Your task to perform on an android device: find snoozed emails in the gmail app Image 0: 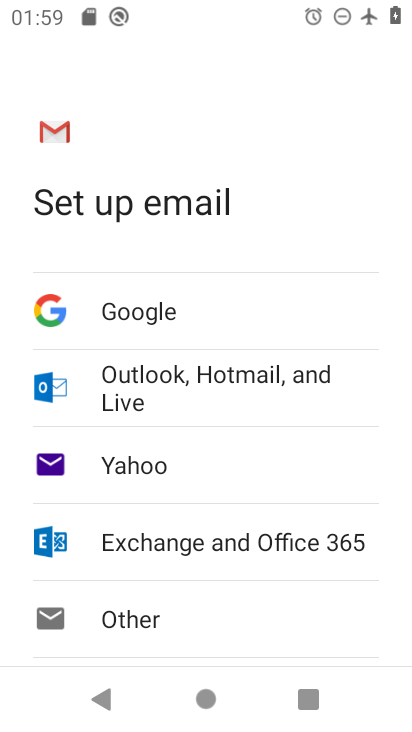
Step 0: press home button
Your task to perform on an android device: find snoozed emails in the gmail app Image 1: 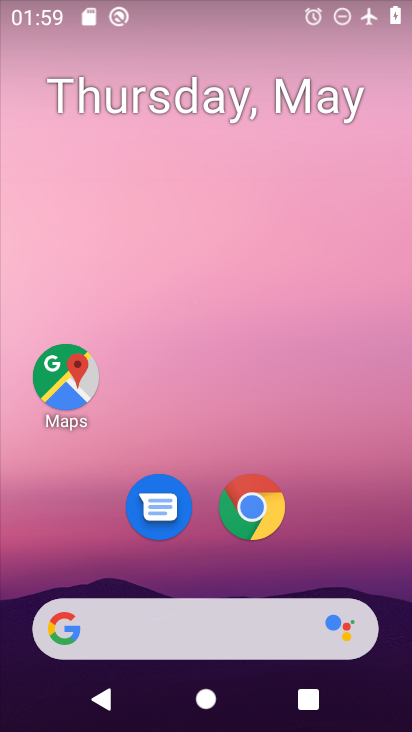
Step 1: drag from (363, 529) to (316, 43)
Your task to perform on an android device: find snoozed emails in the gmail app Image 2: 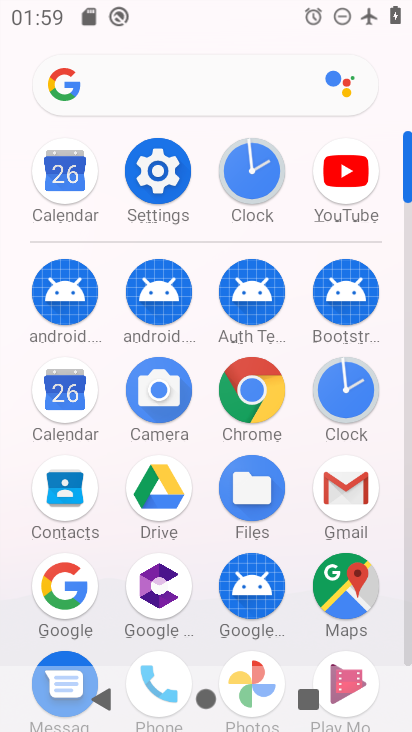
Step 2: click (365, 481)
Your task to perform on an android device: find snoozed emails in the gmail app Image 3: 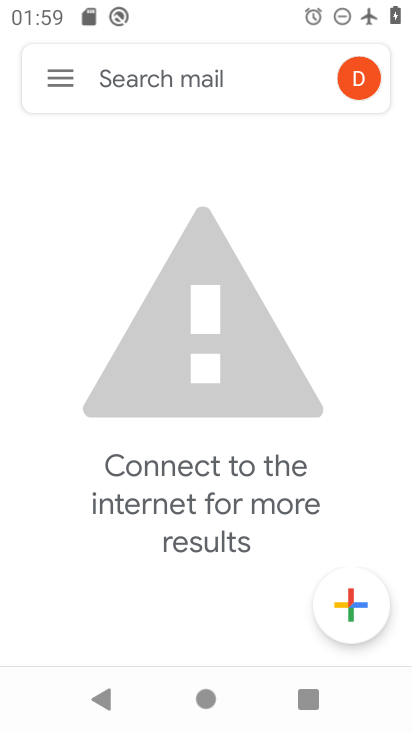
Step 3: click (69, 79)
Your task to perform on an android device: find snoozed emails in the gmail app Image 4: 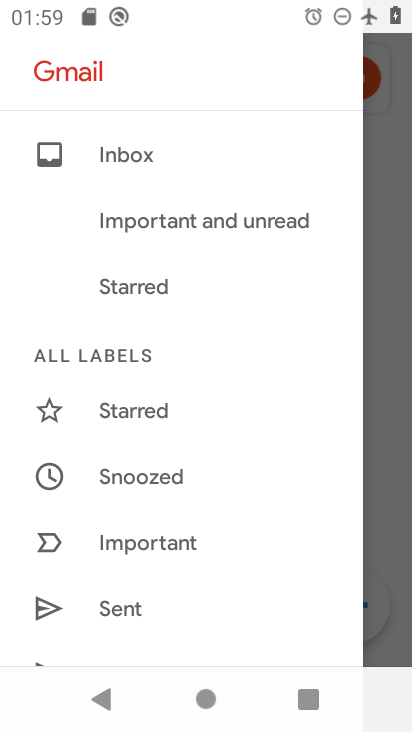
Step 4: click (140, 219)
Your task to perform on an android device: find snoozed emails in the gmail app Image 5: 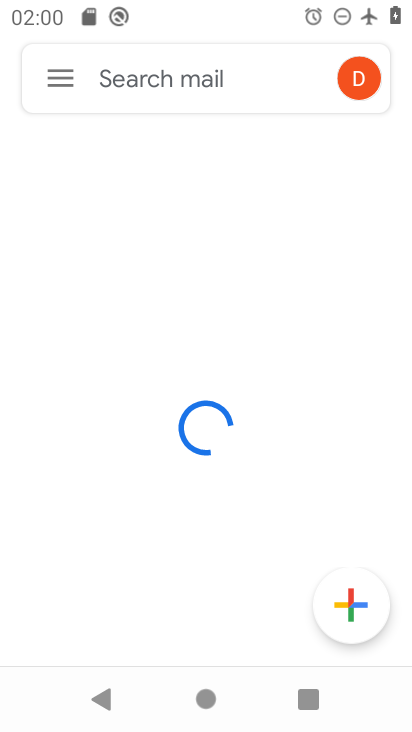
Step 5: click (58, 70)
Your task to perform on an android device: find snoozed emails in the gmail app Image 6: 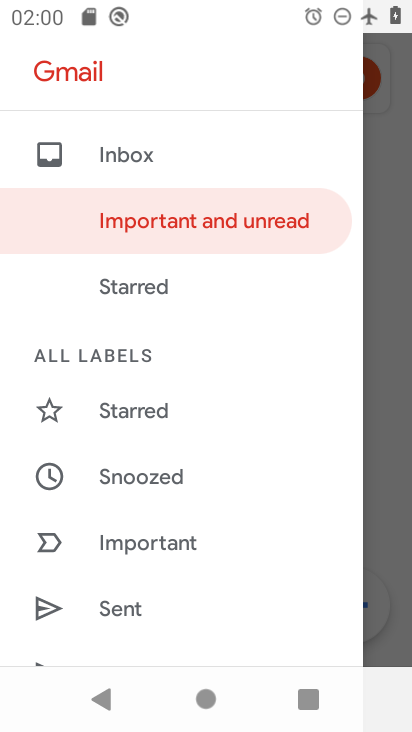
Step 6: click (146, 463)
Your task to perform on an android device: find snoozed emails in the gmail app Image 7: 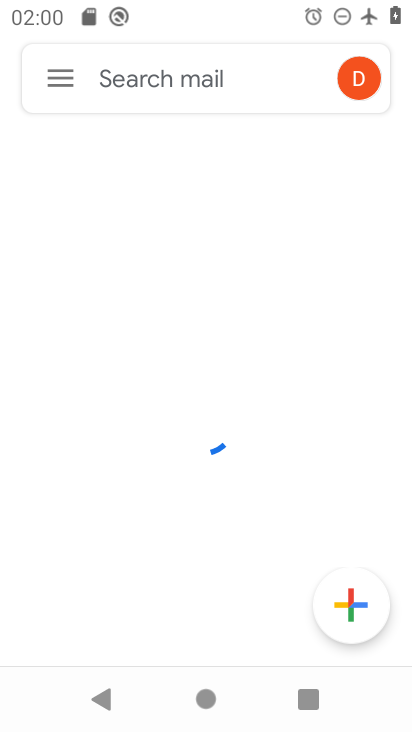
Step 7: task complete